Your task to perform on an android device: toggle improve location accuracy Image 0: 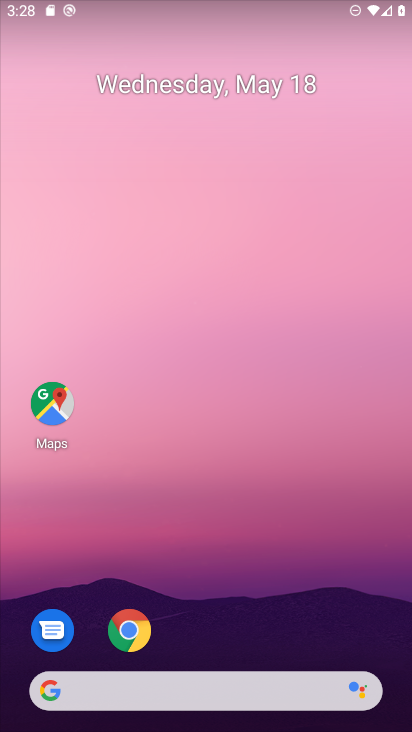
Step 0: drag from (228, 641) to (270, 38)
Your task to perform on an android device: toggle improve location accuracy Image 1: 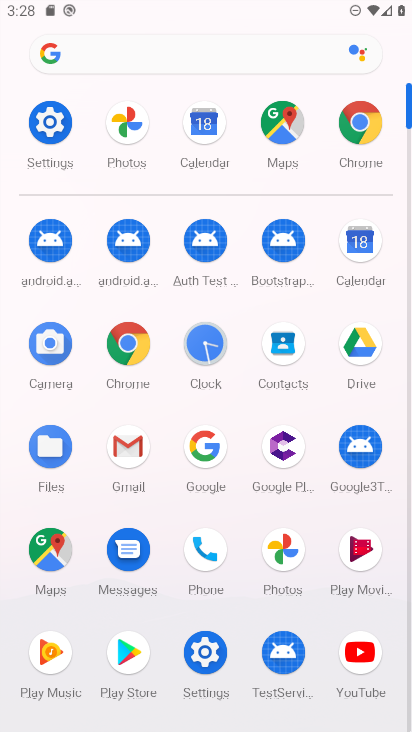
Step 1: click (40, 124)
Your task to perform on an android device: toggle improve location accuracy Image 2: 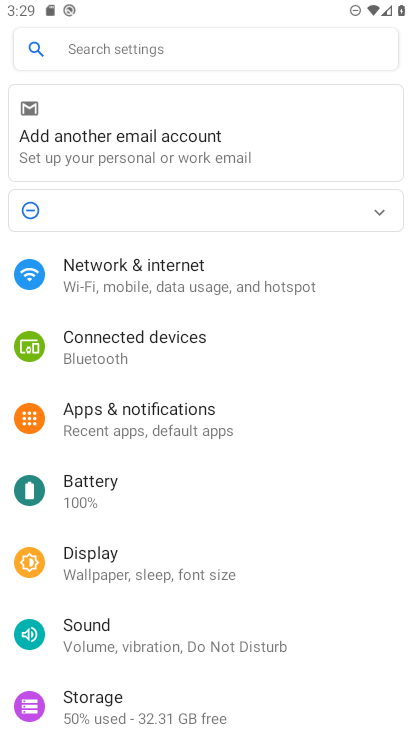
Step 2: drag from (186, 663) to (219, 56)
Your task to perform on an android device: toggle improve location accuracy Image 3: 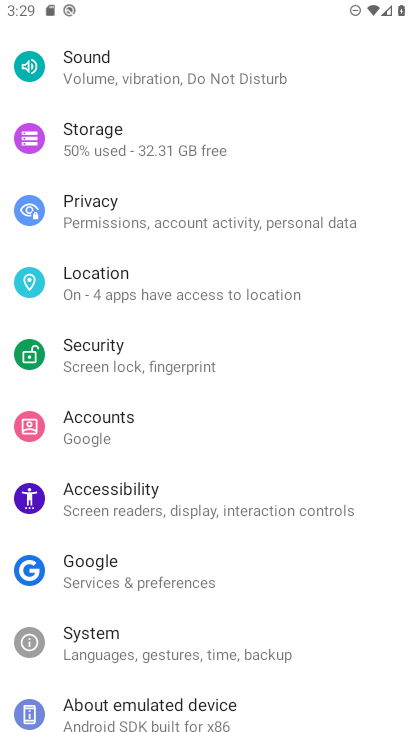
Step 3: click (135, 277)
Your task to perform on an android device: toggle improve location accuracy Image 4: 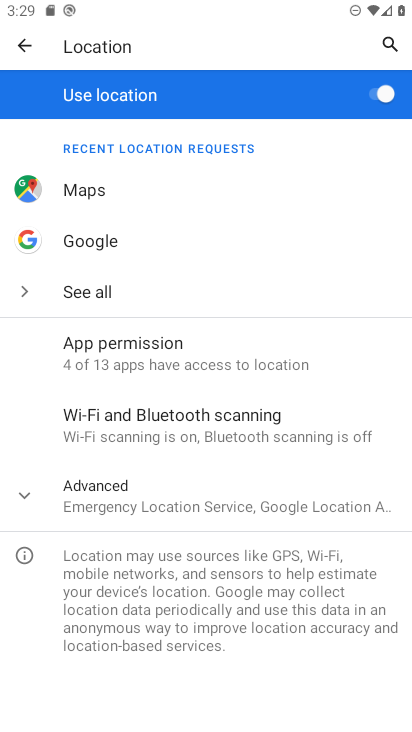
Step 4: click (43, 492)
Your task to perform on an android device: toggle improve location accuracy Image 5: 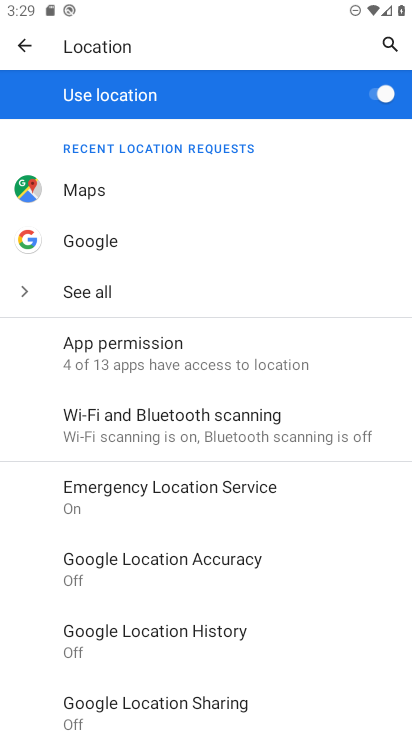
Step 5: click (138, 568)
Your task to perform on an android device: toggle improve location accuracy Image 6: 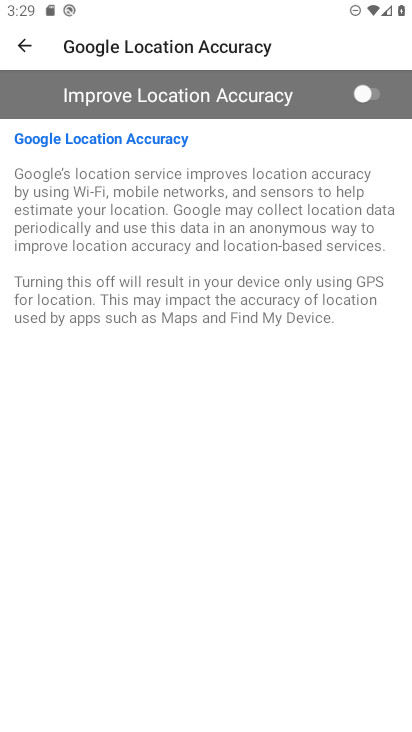
Step 6: click (367, 88)
Your task to perform on an android device: toggle improve location accuracy Image 7: 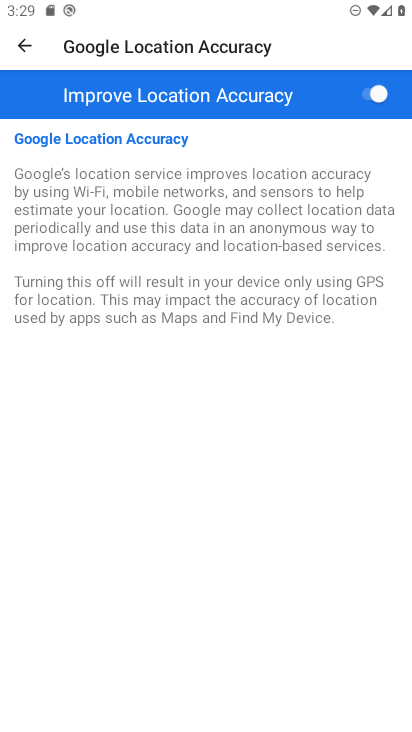
Step 7: task complete